Your task to perform on an android device: change timer sound Image 0: 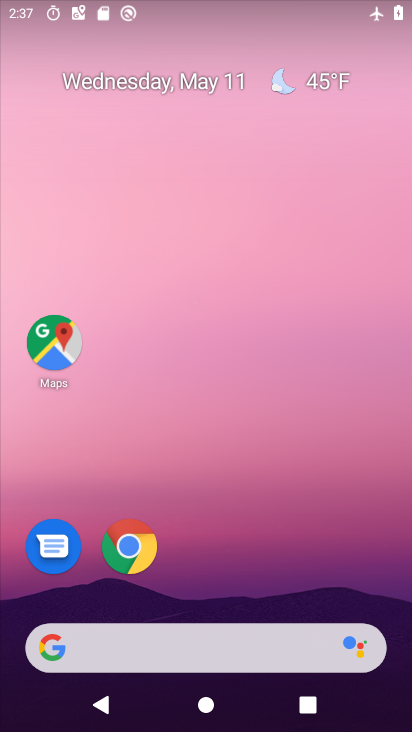
Step 0: drag from (232, 586) to (265, 36)
Your task to perform on an android device: change timer sound Image 1: 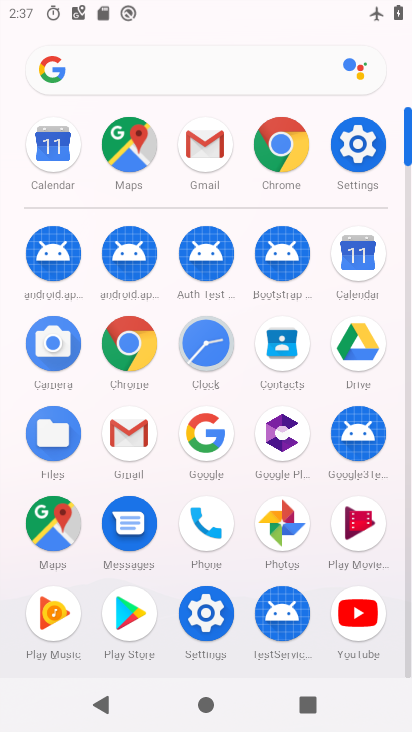
Step 1: click (362, 180)
Your task to perform on an android device: change timer sound Image 2: 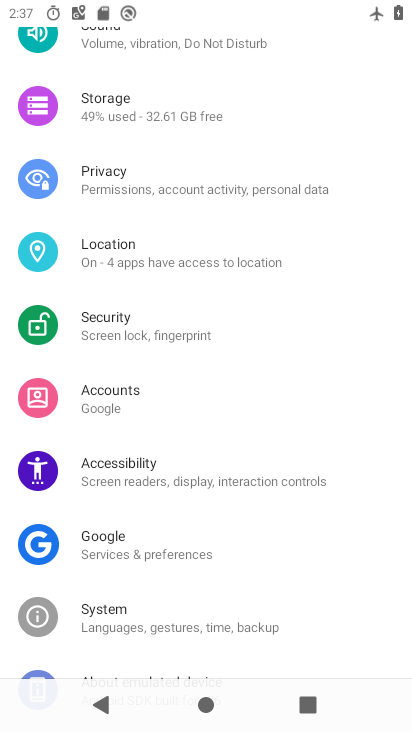
Step 2: press home button
Your task to perform on an android device: change timer sound Image 3: 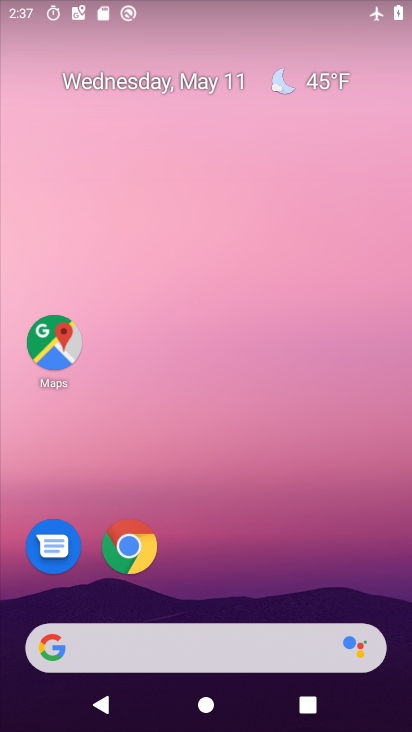
Step 3: drag from (194, 581) to (263, 112)
Your task to perform on an android device: change timer sound Image 4: 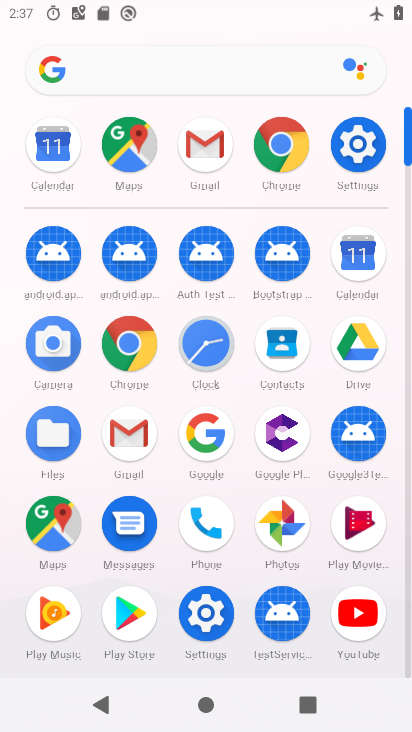
Step 4: click (192, 345)
Your task to perform on an android device: change timer sound Image 5: 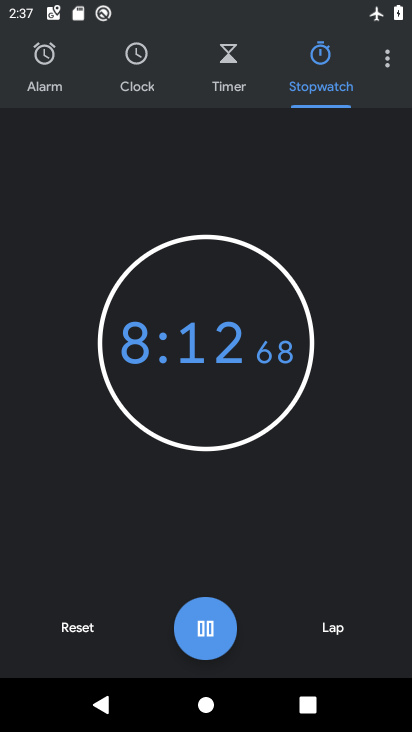
Step 5: click (393, 67)
Your task to perform on an android device: change timer sound Image 6: 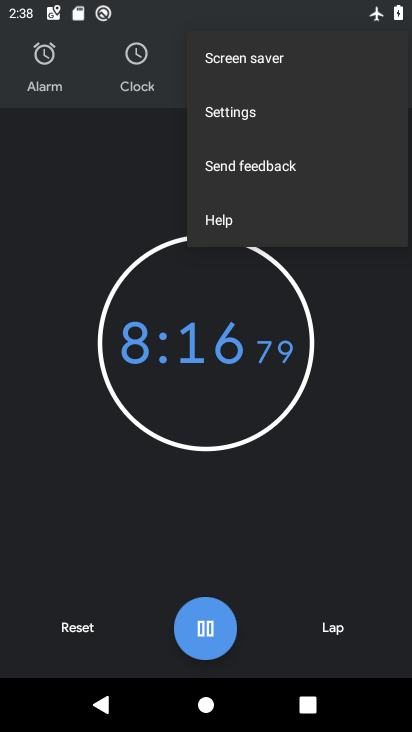
Step 6: click (238, 114)
Your task to perform on an android device: change timer sound Image 7: 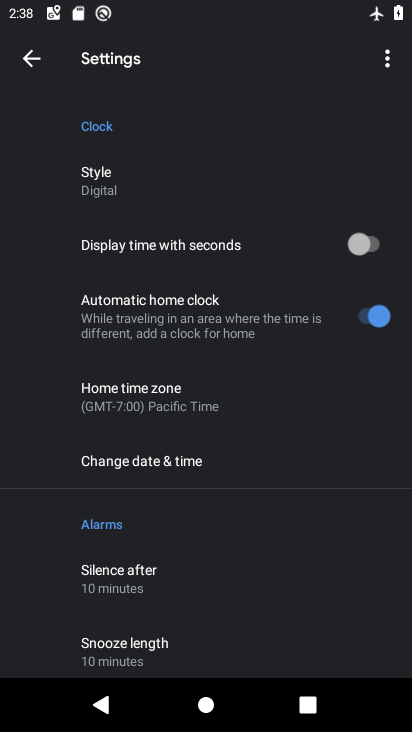
Step 7: drag from (137, 484) to (158, 353)
Your task to perform on an android device: change timer sound Image 8: 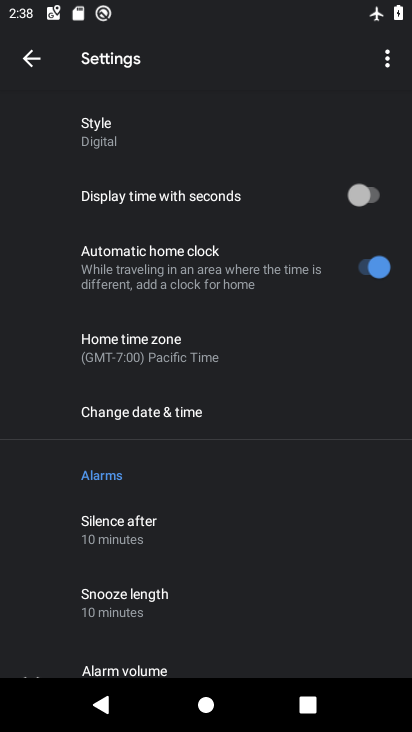
Step 8: drag from (139, 575) to (187, 294)
Your task to perform on an android device: change timer sound Image 9: 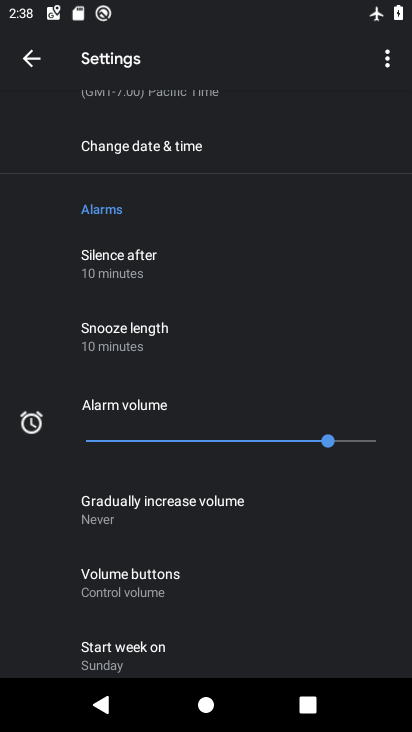
Step 9: drag from (188, 560) to (239, 185)
Your task to perform on an android device: change timer sound Image 10: 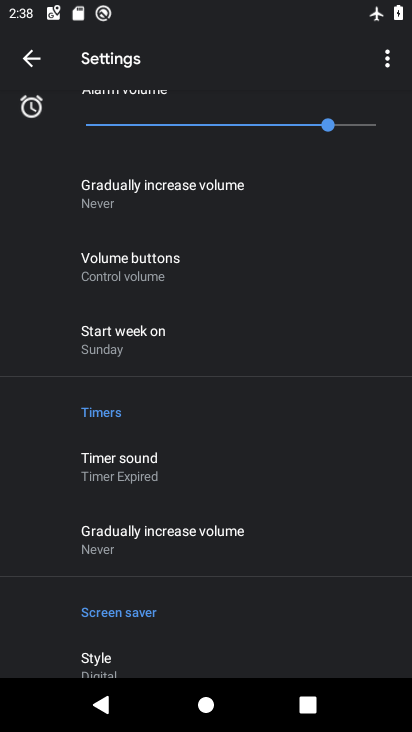
Step 10: click (157, 478)
Your task to perform on an android device: change timer sound Image 11: 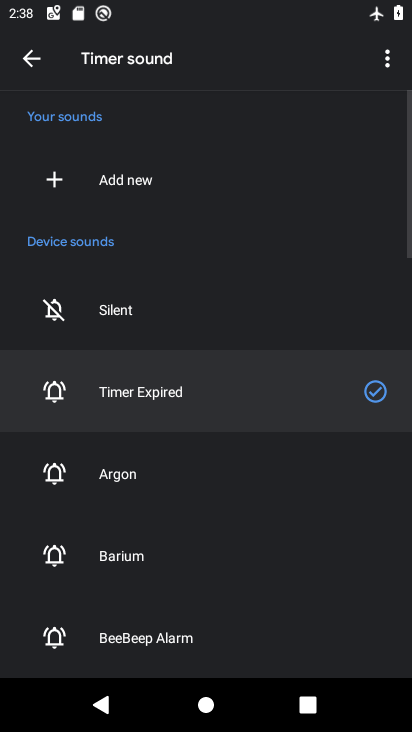
Step 11: click (124, 585)
Your task to perform on an android device: change timer sound Image 12: 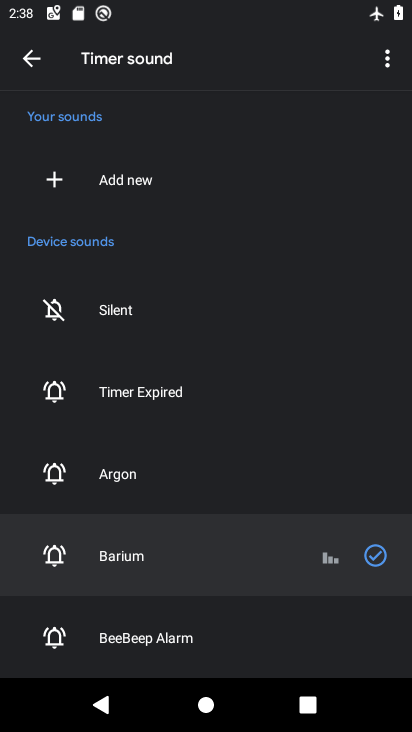
Step 12: task complete